Your task to perform on an android device: Open privacy settings Image 0: 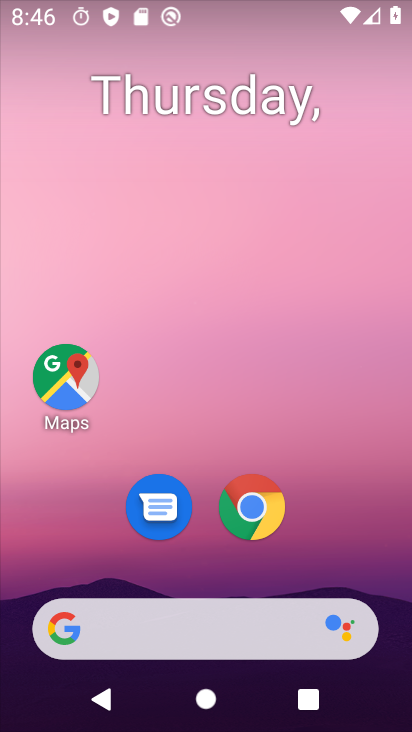
Step 0: drag from (213, 553) to (298, 5)
Your task to perform on an android device: Open privacy settings Image 1: 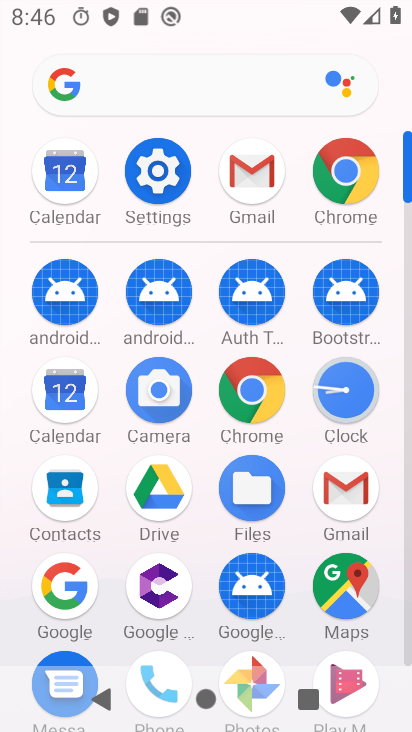
Step 1: click (165, 196)
Your task to perform on an android device: Open privacy settings Image 2: 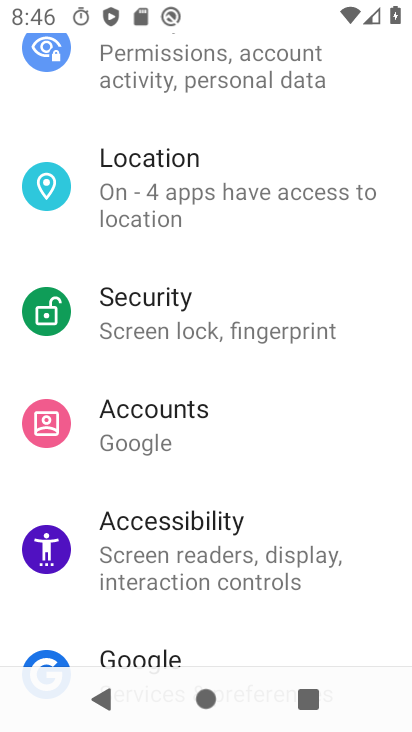
Step 2: drag from (193, 477) to (204, 651)
Your task to perform on an android device: Open privacy settings Image 3: 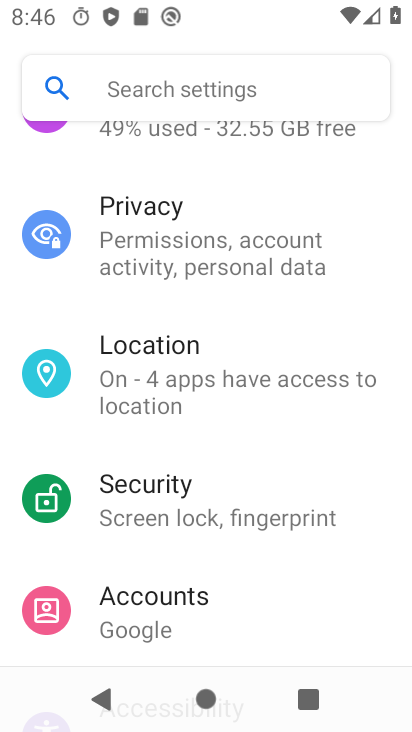
Step 3: click (172, 263)
Your task to perform on an android device: Open privacy settings Image 4: 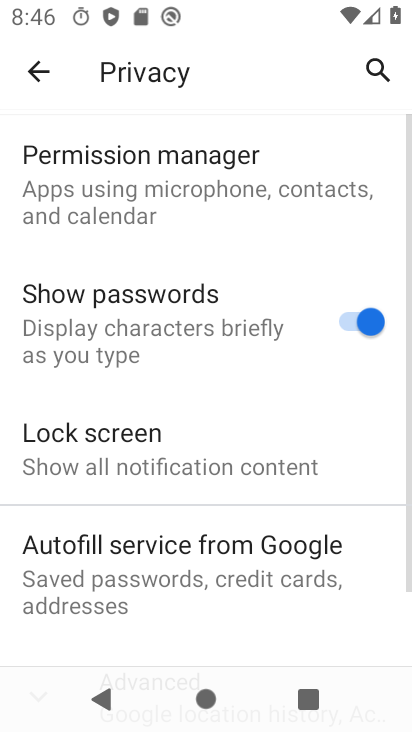
Step 4: task complete